Your task to perform on an android device: Open calendar and show me the first week of next month Image 0: 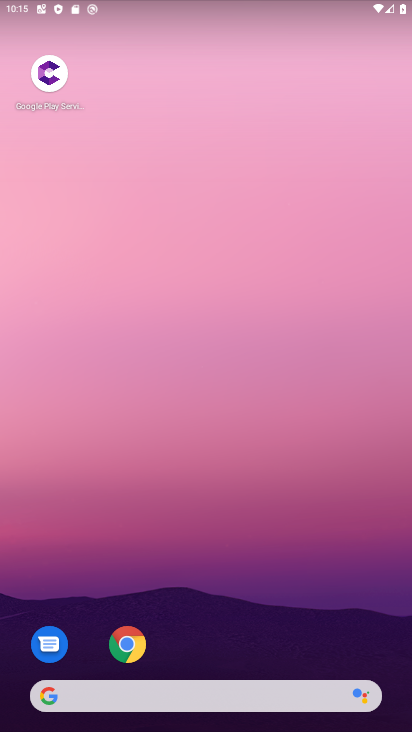
Step 0: drag from (256, 578) to (206, 114)
Your task to perform on an android device: Open calendar and show me the first week of next month Image 1: 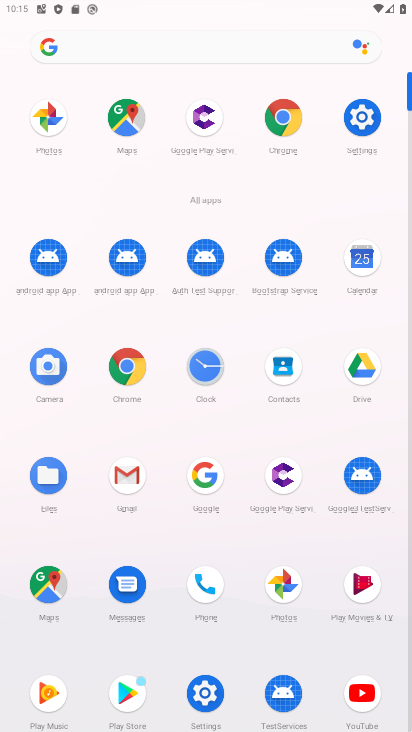
Step 1: click (364, 259)
Your task to perform on an android device: Open calendar and show me the first week of next month Image 2: 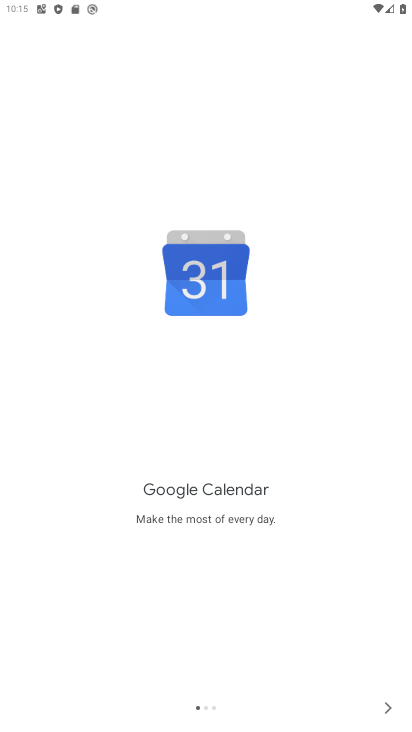
Step 2: click (378, 702)
Your task to perform on an android device: Open calendar and show me the first week of next month Image 3: 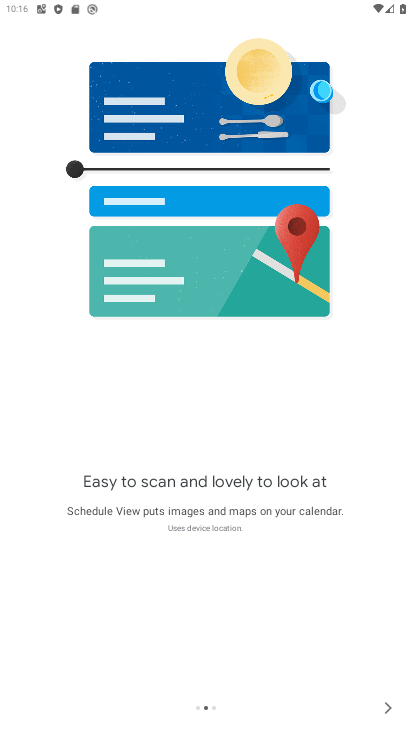
Step 3: click (378, 702)
Your task to perform on an android device: Open calendar and show me the first week of next month Image 4: 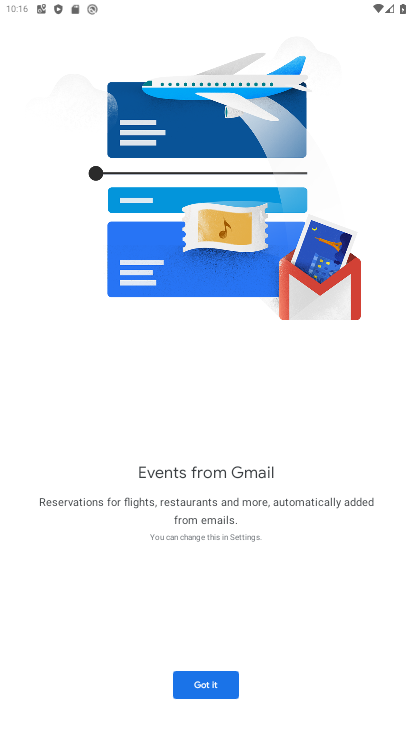
Step 4: click (202, 684)
Your task to perform on an android device: Open calendar and show me the first week of next month Image 5: 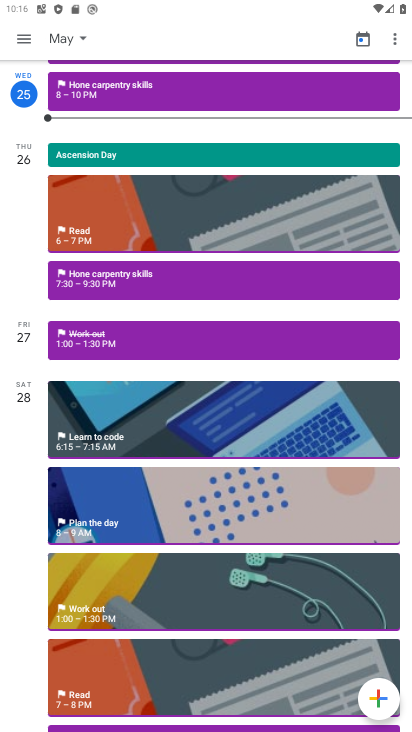
Step 5: click (26, 40)
Your task to perform on an android device: Open calendar and show me the first week of next month Image 6: 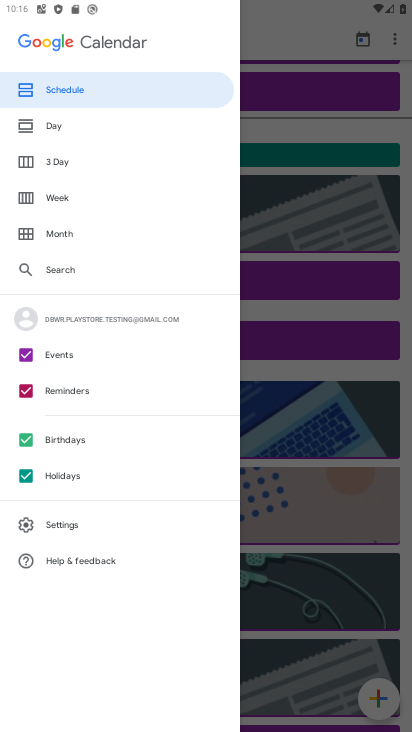
Step 6: click (51, 195)
Your task to perform on an android device: Open calendar and show me the first week of next month Image 7: 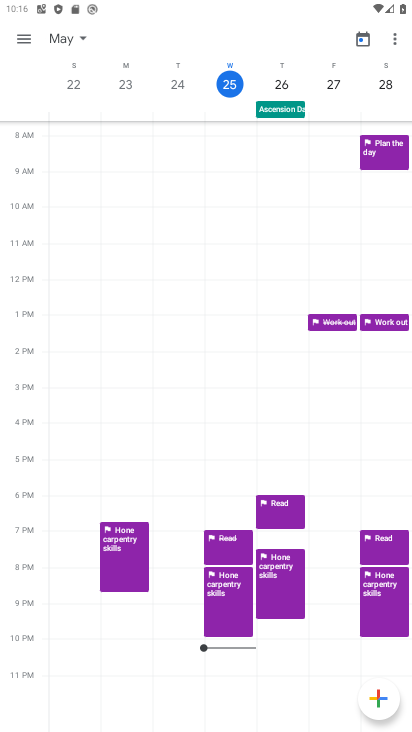
Step 7: click (84, 35)
Your task to perform on an android device: Open calendar and show me the first week of next month Image 8: 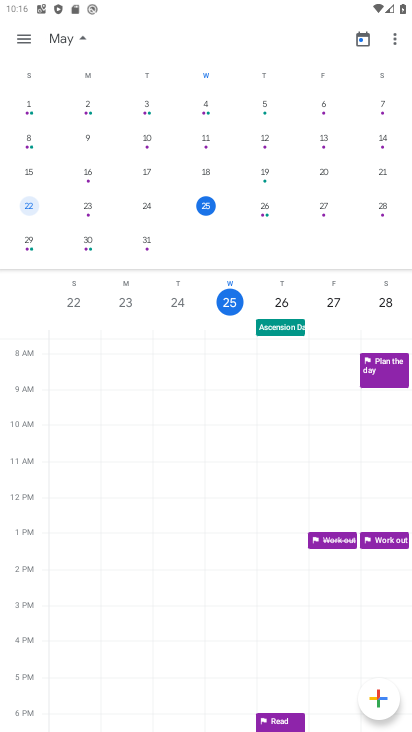
Step 8: drag from (330, 153) to (34, 145)
Your task to perform on an android device: Open calendar and show me the first week of next month Image 9: 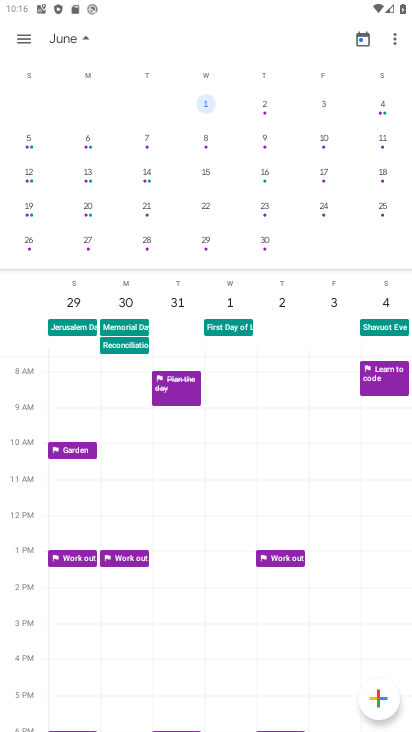
Step 9: click (206, 102)
Your task to perform on an android device: Open calendar and show me the first week of next month Image 10: 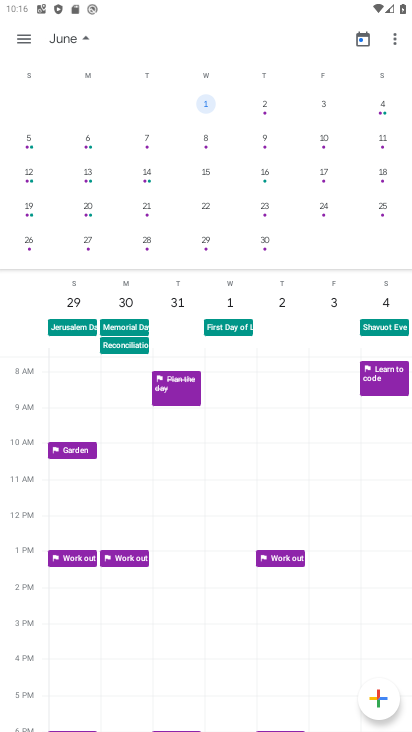
Step 10: task complete